Your task to perform on an android device: remove spam from my inbox in the gmail app Image 0: 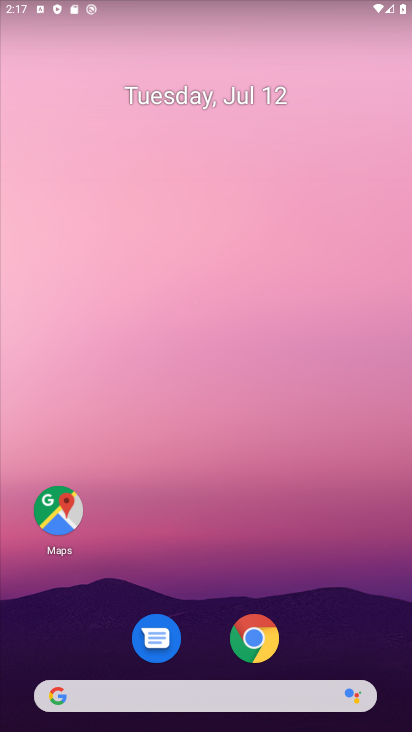
Step 0: drag from (203, 394) to (251, 58)
Your task to perform on an android device: remove spam from my inbox in the gmail app Image 1: 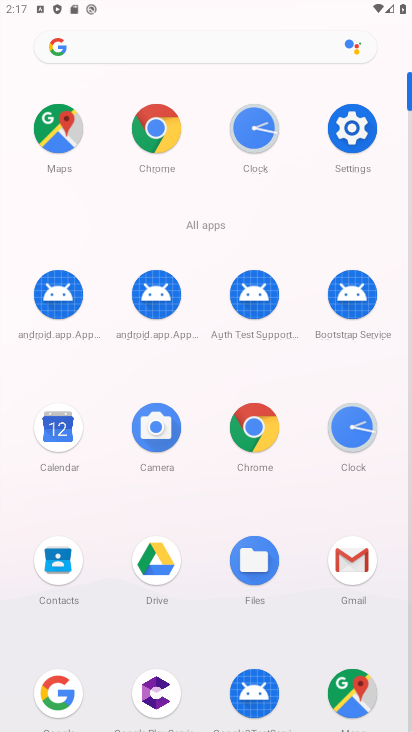
Step 1: click (355, 572)
Your task to perform on an android device: remove spam from my inbox in the gmail app Image 2: 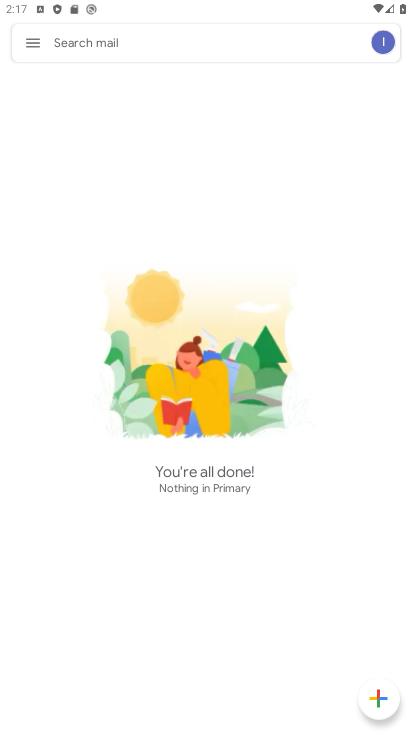
Step 2: click (29, 49)
Your task to perform on an android device: remove spam from my inbox in the gmail app Image 3: 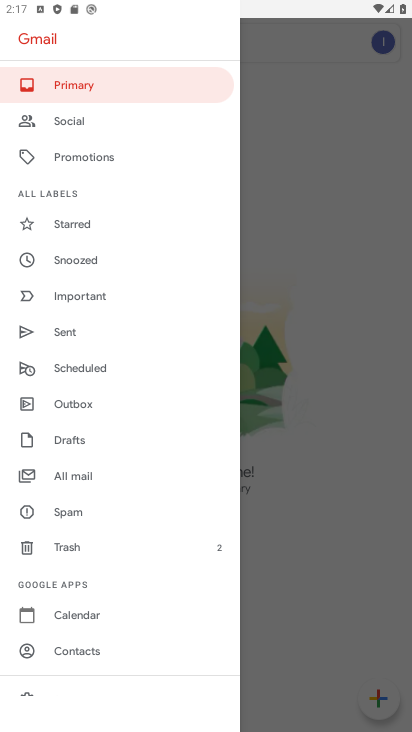
Step 3: click (85, 519)
Your task to perform on an android device: remove spam from my inbox in the gmail app Image 4: 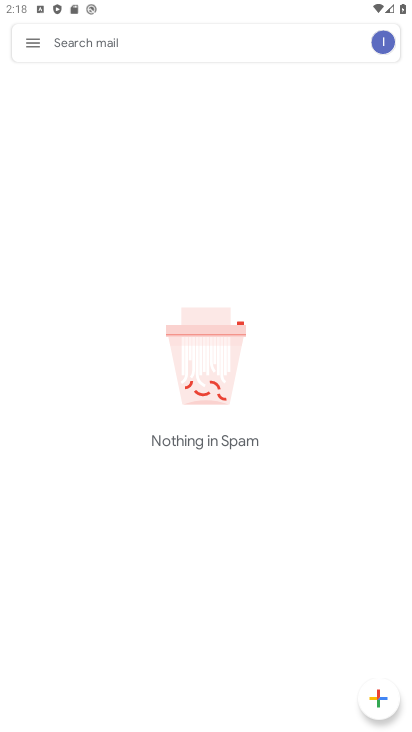
Step 4: task complete